Your task to perform on an android device: turn on showing notifications on the lock screen Image 0: 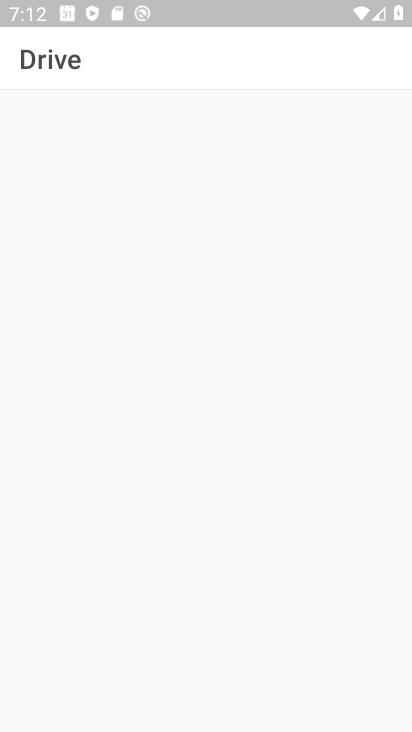
Step 0: press home button
Your task to perform on an android device: turn on showing notifications on the lock screen Image 1: 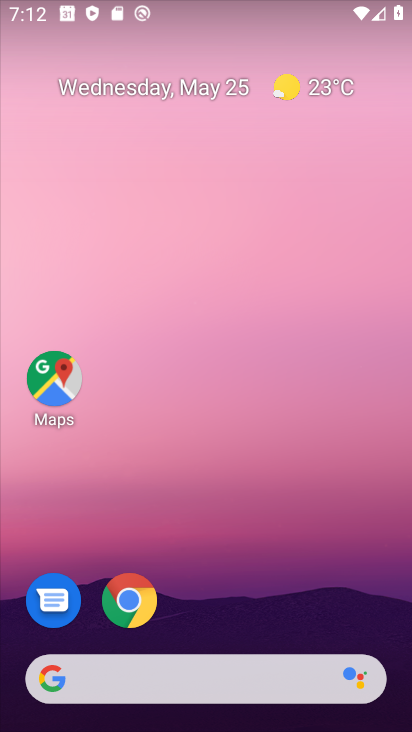
Step 1: drag from (258, 601) to (245, 56)
Your task to perform on an android device: turn on showing notifications on the lock screen Image 2: 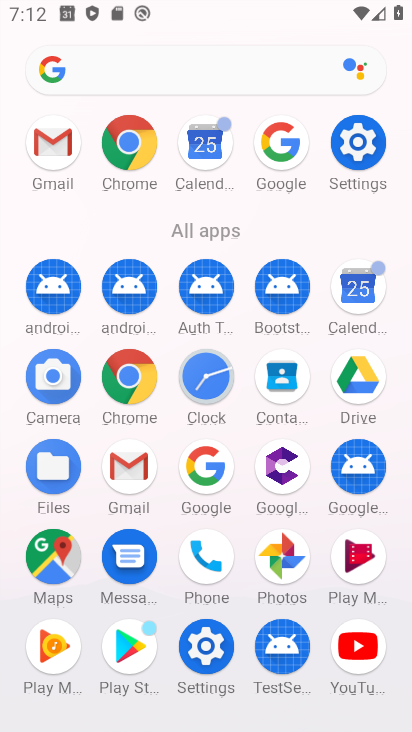
Step 2: click (359, 141)
Your task to perform on an android device: turn on showing notifications on the lock screen Image 3: 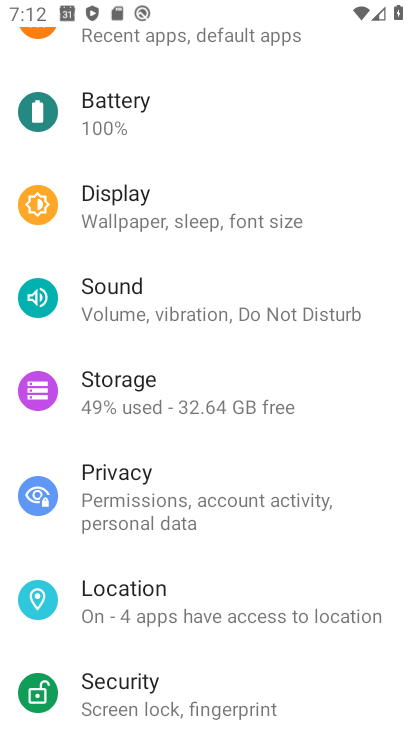
Step 3: drag from (229, 551) to (269, 464)
Your task to perform on an android device: turn on showing notifications on the lock screen Image 4: 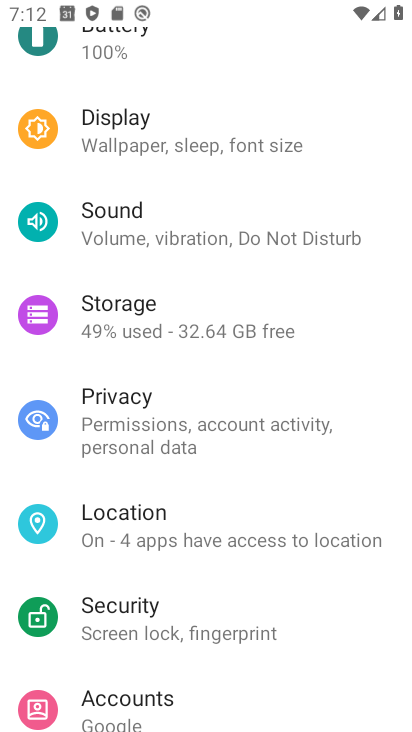
Step 4: drag from (225, 298) to (262, 415)
Your task to perform on an android device: turn on showing notifications on the lock screen Image 5: 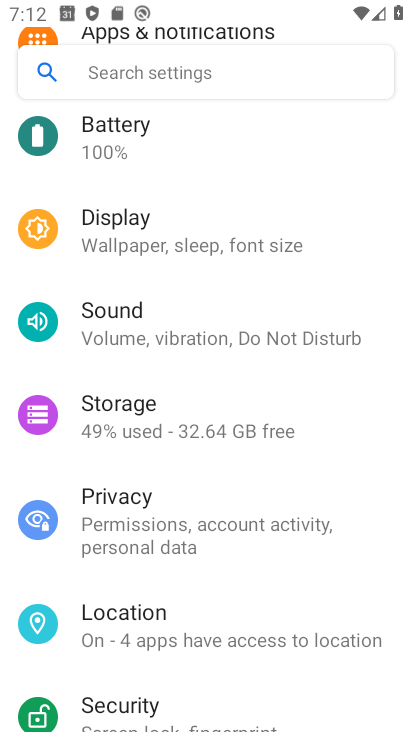
Step 5: drag from (232, 293) to (256, 402)
Your task to perform on an android device: turn on showing notifications on the lock screen Image 6: 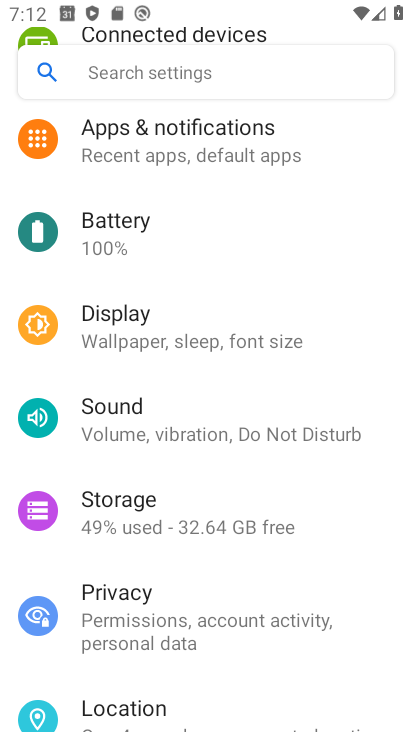
Step 6: drag from (217, 248) to (260, 339)
Your task to perform on an android device: turn on showing notifications on the lock screen Image 7: 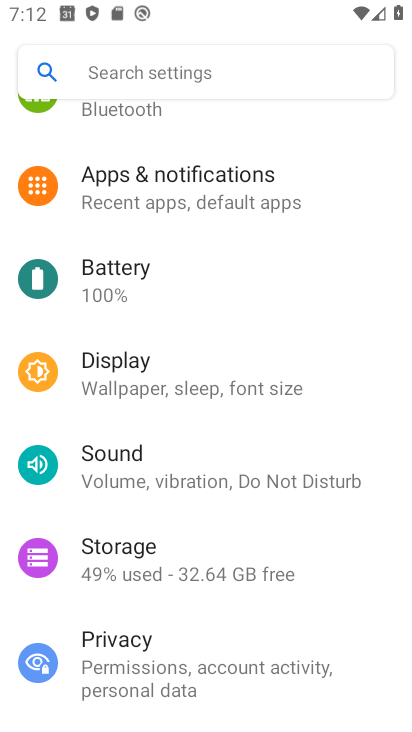
Step 7: click (203, 207)
Your task to perform on an android device: turn on showing notifications on the lock screen Image 8: 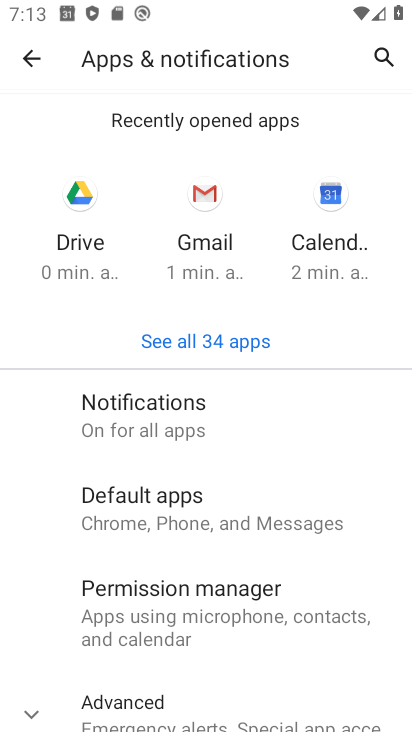
Step 8: click (163, 409)
Your task to perform on an android device: turn on showing notifications on the lock screen Image 9: 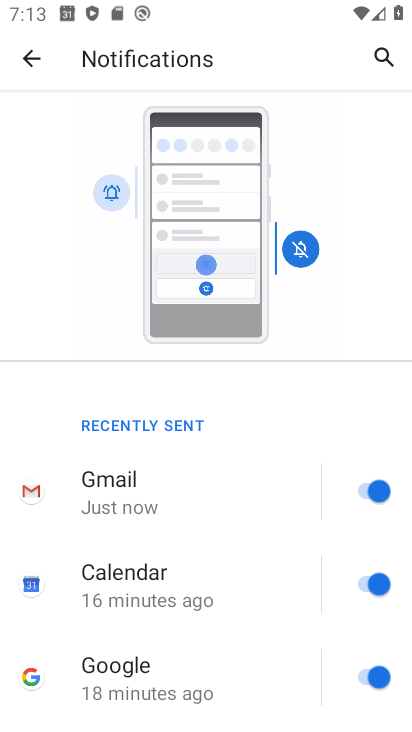
Step 9: drag from (181, 541) to (227, 432)
Your task to perform on an android device: turn on showing notifications on the lock screen Image 10: 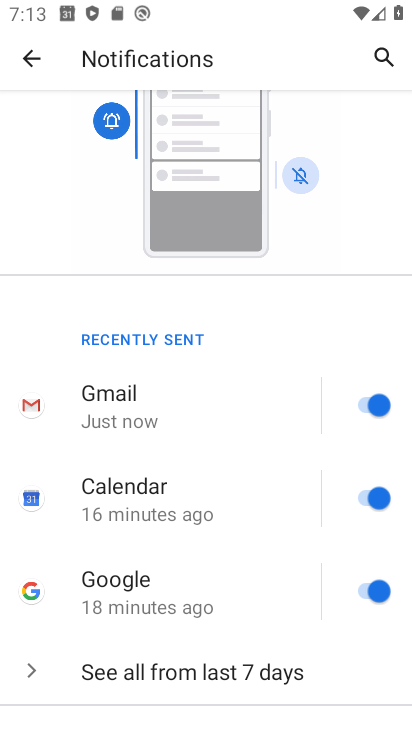
Step 10: drag from (166, 546) to (222, 448)
Your task to perform on an android device: turn on showing notifications on the lock screen Image 11: 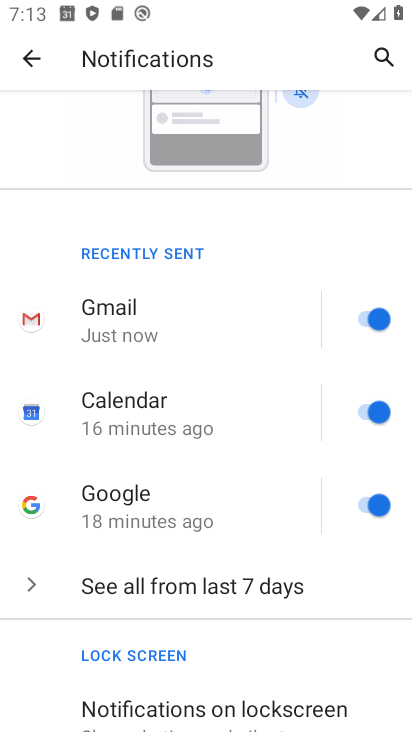
Step 11: drag from (135, 558) to (185, 469)
Your task to perform on an android device: turn on showing notifications on the lock screen Image 12: 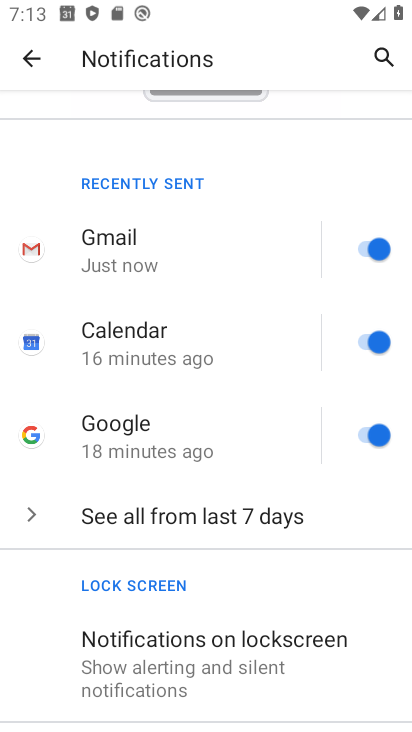
Step 12: click (195, 634)
Your task to perform on an android device: turn on showing notifications on the lock screen Image 13: 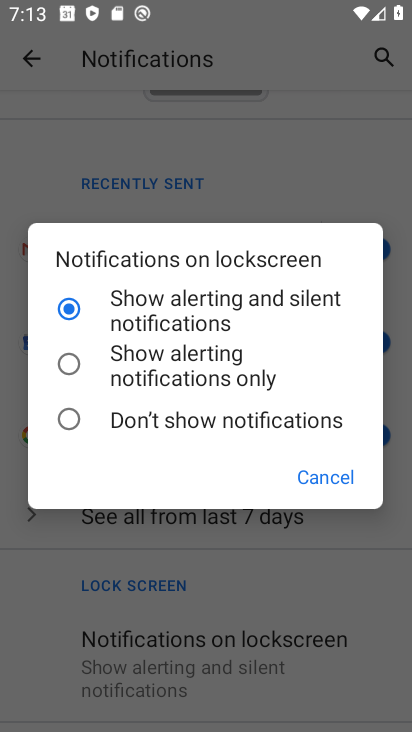
Step 13: click (69, 312)
Your task to perform on an android device: turn on showing notifications on the lock screen Image 14: 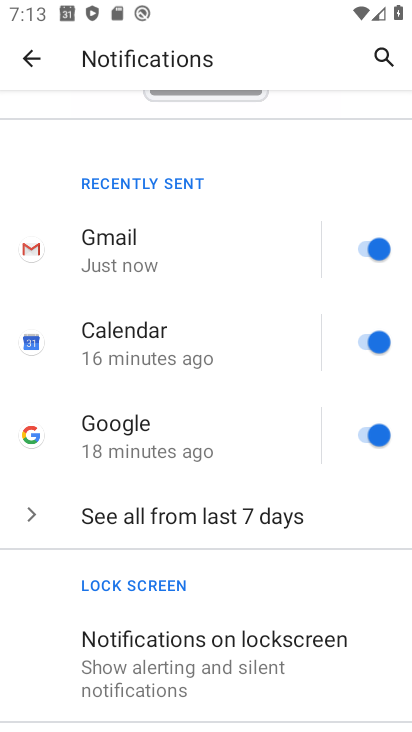
Step 14: task complete